Your task to perform on an android device: change alarm snooze length Image 0: 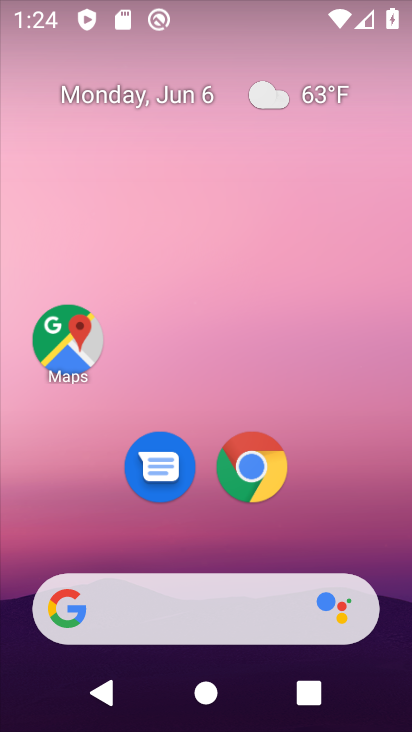
Step 0: drag from (391, 622) to (316, 30)
Your task to perform on an android device: change alarm snooze length Image 1: 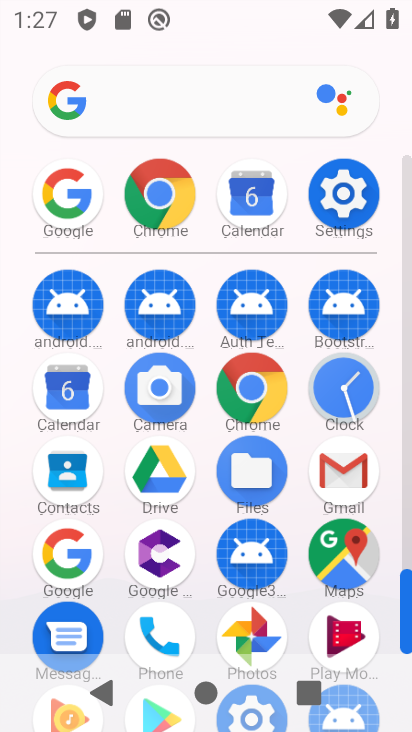
Step 1: click (359, 400)
Your task to perform on an android device: change alarm snooze length Image 2: 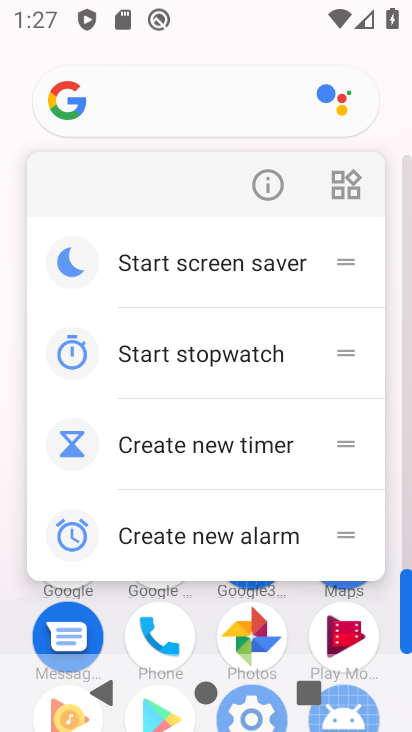
Step 2: click (394, 333)
Your task to perform on an android device: change alarm snooze length Image 3: 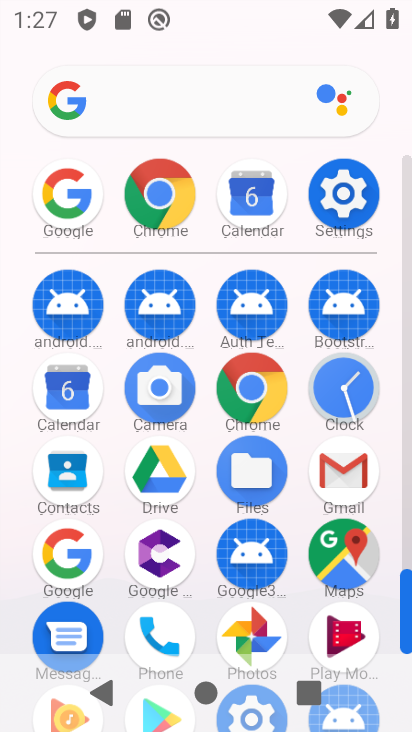
Step 3: click (325, 374)
Your task to perform on an android device: change alarm snooze length Image 4: 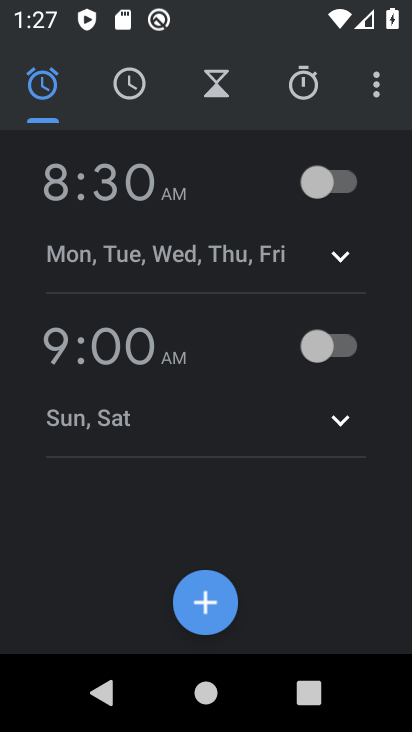
Step 4: click (371, 69)
Your task to perform on an android device: change alarm snooze length Image 5: 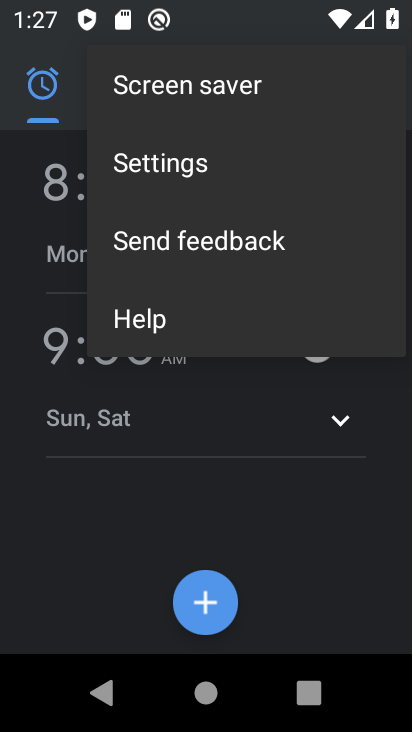
Step 5: click (242, 154)
Your task to perform on an android device: change alarm snooze length Image 6: 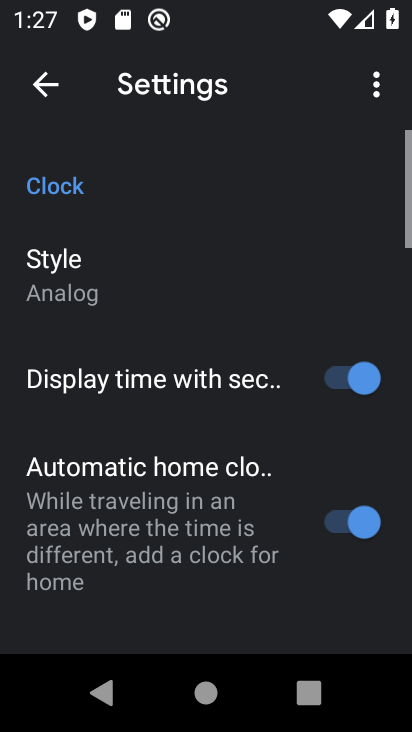
Step 6: drag from (188, 569) to (186, 35)
Your task to perform on an android device: change alarm snooze length Image 7: 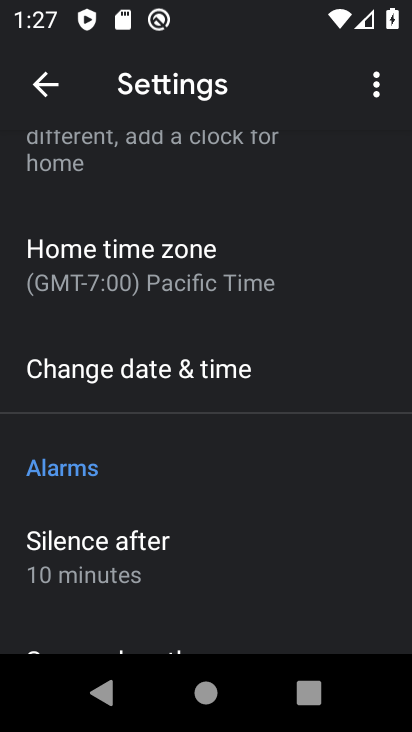
Step 7: drag from (130, 543) to (199, 147)
Your task to perform on an android device: change alarm snooze length Image 8: 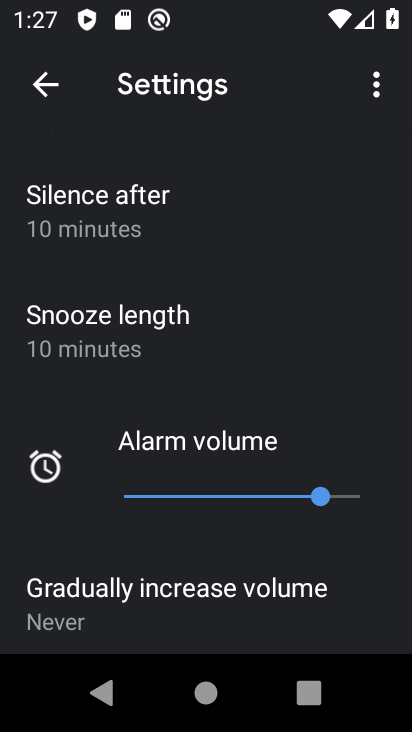
Step 8: click (171, 320)
Your task to perform on an android device: change alarm snooze length Image 9: 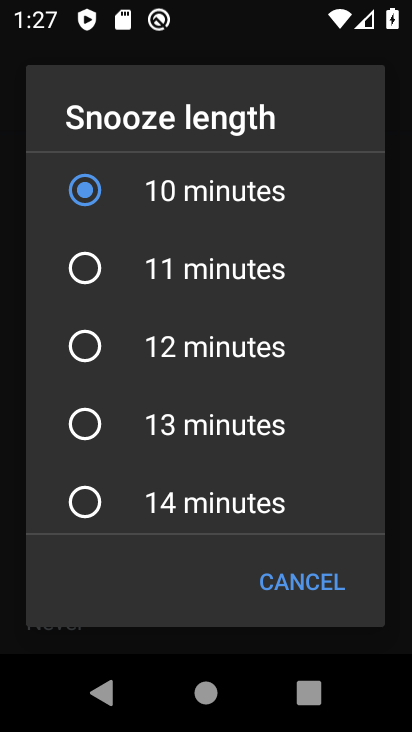
Step 9: click (86, 493)
Your task to perform on an android device: change alarm snooze length Image 10: 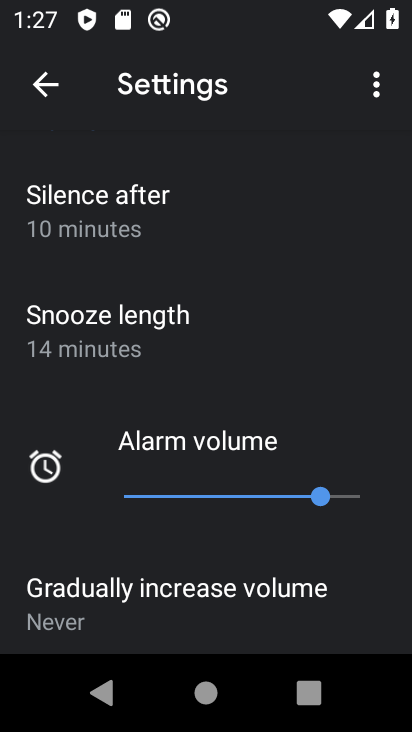
Step 10: task complete